Your task to perform on an android device: View the shopping cart on walmart. Search for "logitech g pro" on walmart, select the first entry, add it to the cart, then select checkout. Image 0: 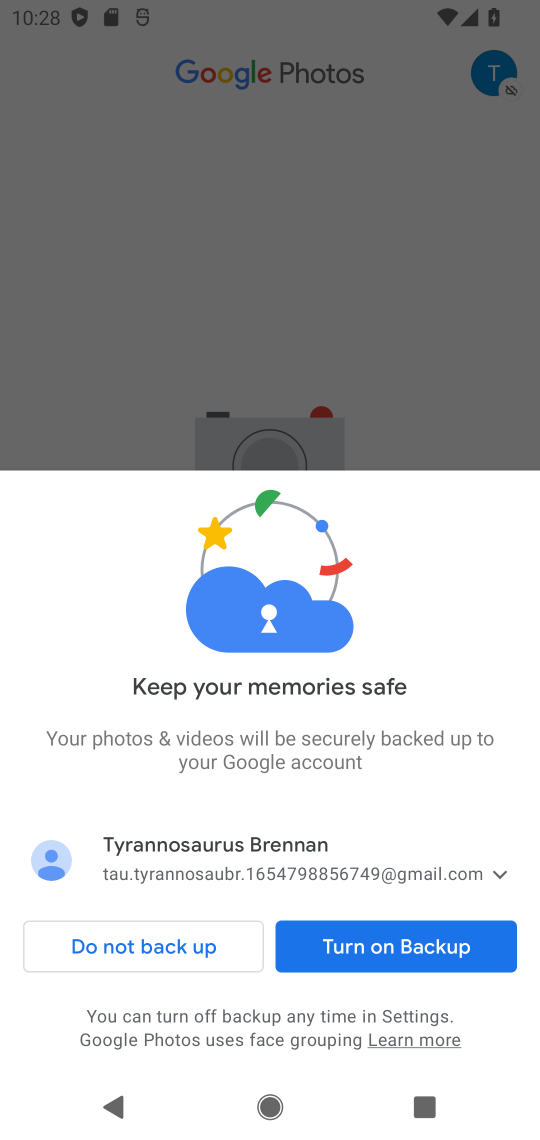
Step 0: press home button
Your task to perform on an android device: View the shopping cart on walmart. Search for "logitech g pro" on walmart, select the first entry, add it to the cart, then select checkout. Image 1: 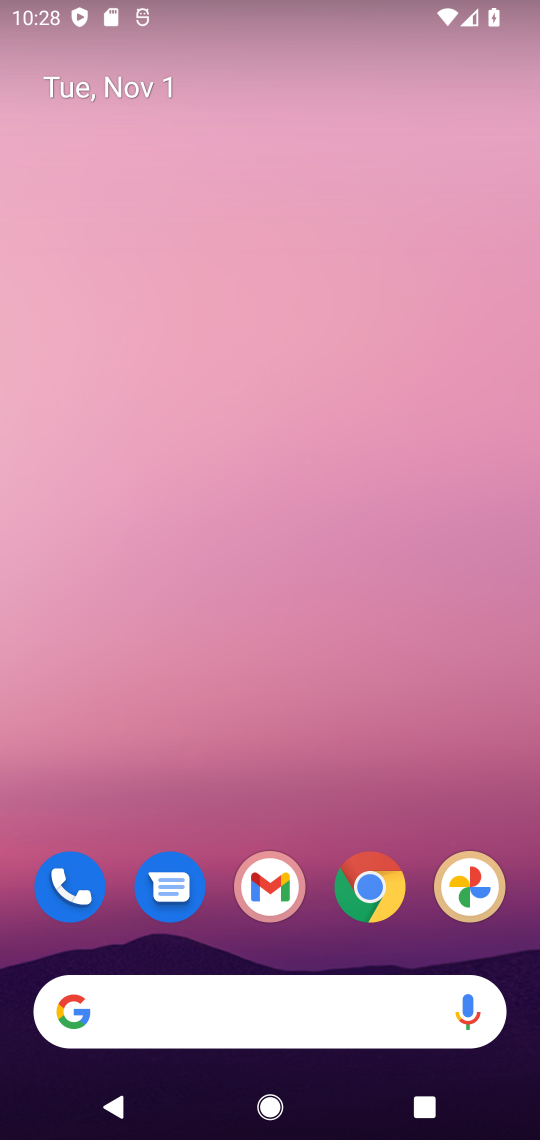
Step 1: click (369, 877)
Your task to perform on an android device: View the shopping cart on walmart. Search for "logitech g pro" on walmart, select the first entry, add it to the cart, then select checkout. Image 2: 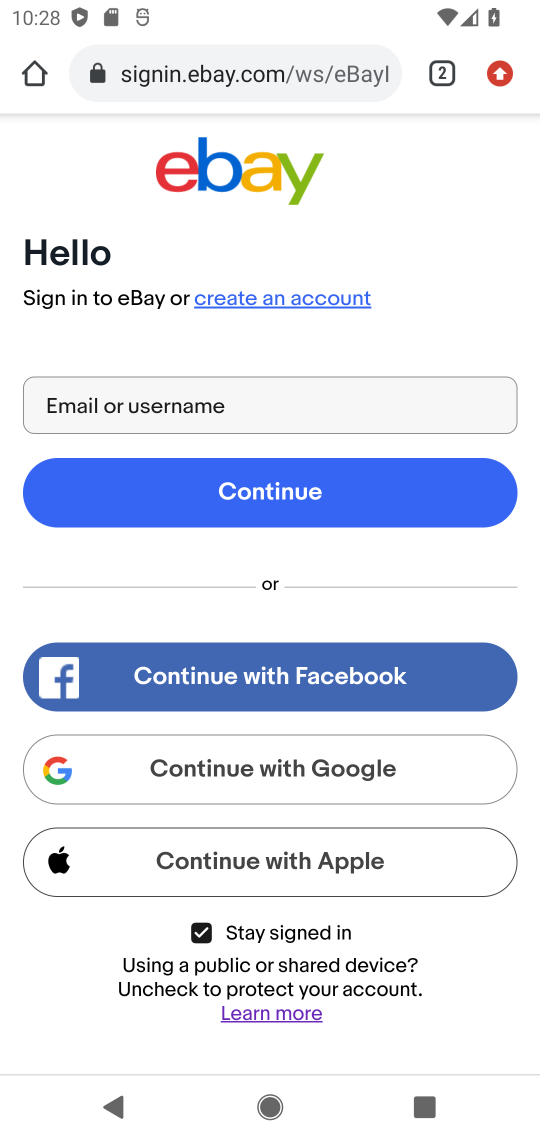
Step 2: click (271, 82)
Your task to perform on an android device: View the shopping cart on walmart. Search for "logitech g pro" on walmart, select the first entry, add it to the cart, then select checkout. Image 3: 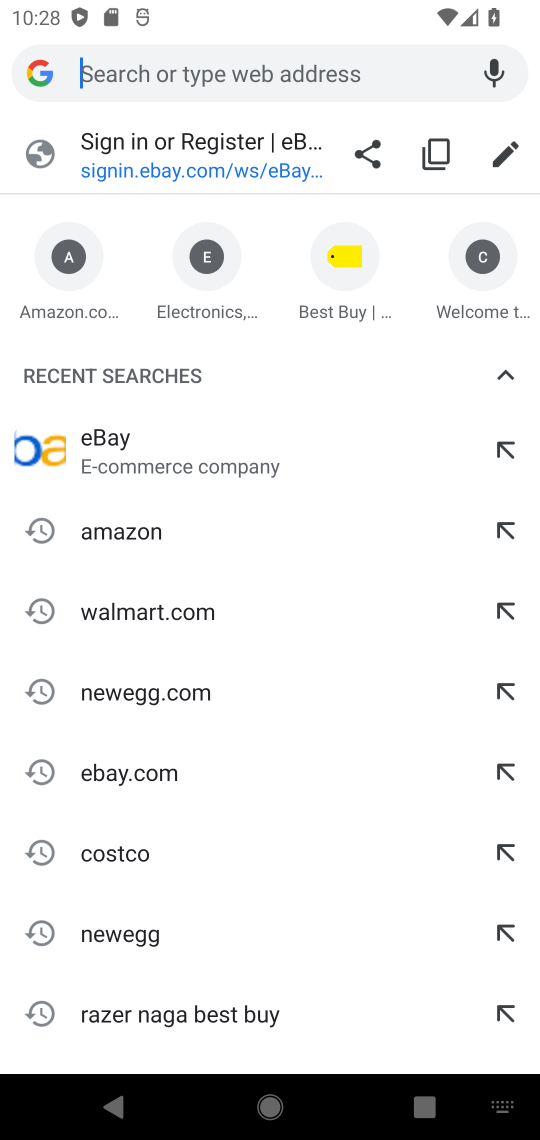
Step 3: click (170, 621)
Your task to perform on an android device: View the shopping cart on walmart. Search for "logitech g pro" on walmart, select the first entry, add it to the cart, then select checkout. Image 4: 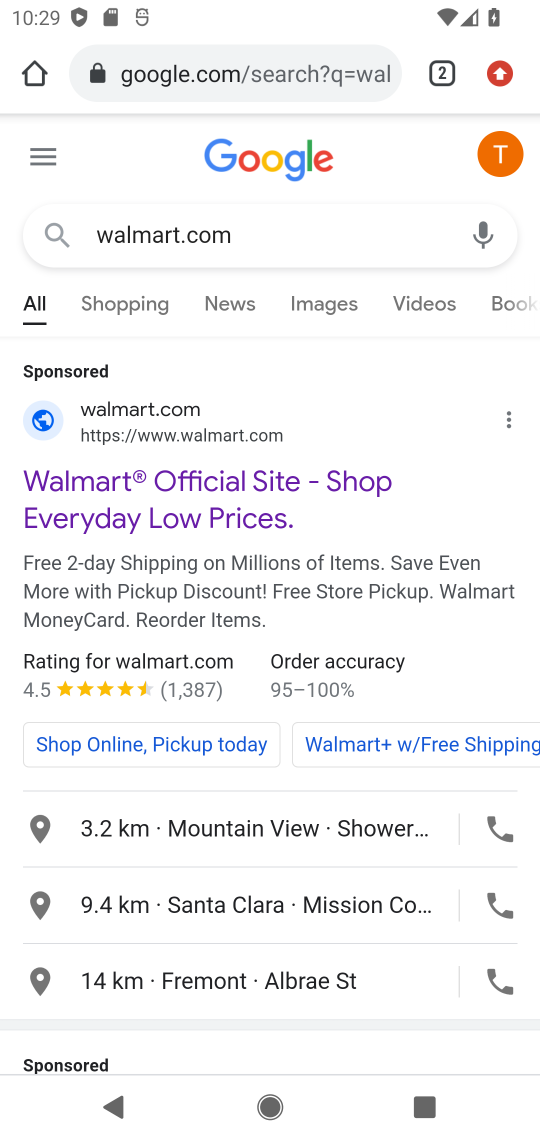
Step 4: click (57, 488)
Your task to perform on an android device: View the shopping cart on walmart. Search for "logitech g pro" on walmart, select the first entry, add it to the cart, then select checkout. Image 5: 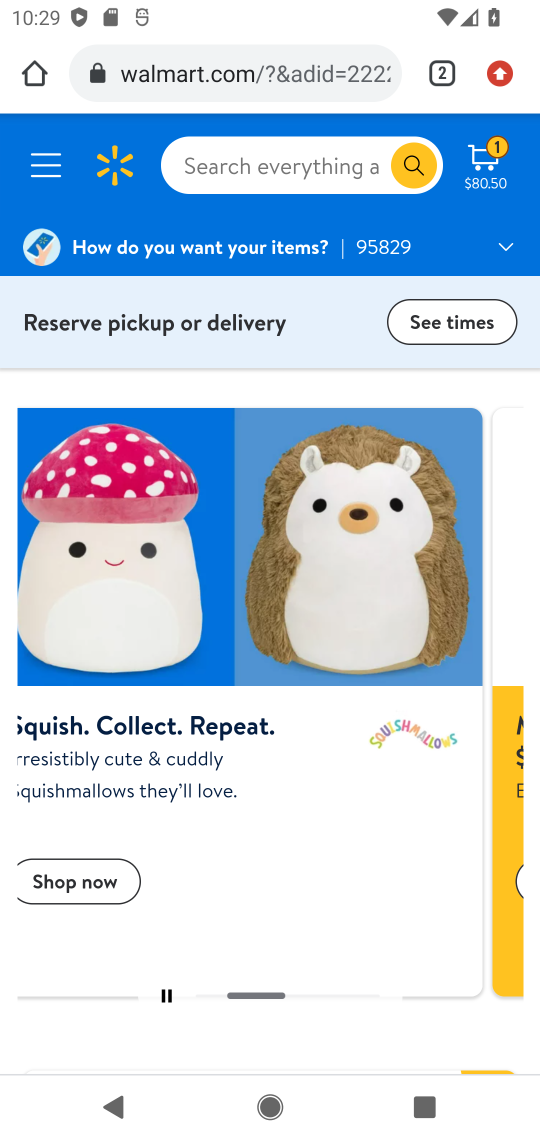
Step 5: click (215, 159)
Your task to perform on an android device: View the shopping cart on walmart. Search for "logitech g pro" on walmart, select the first entry, add it to the cart, then select checkout. Image 6: 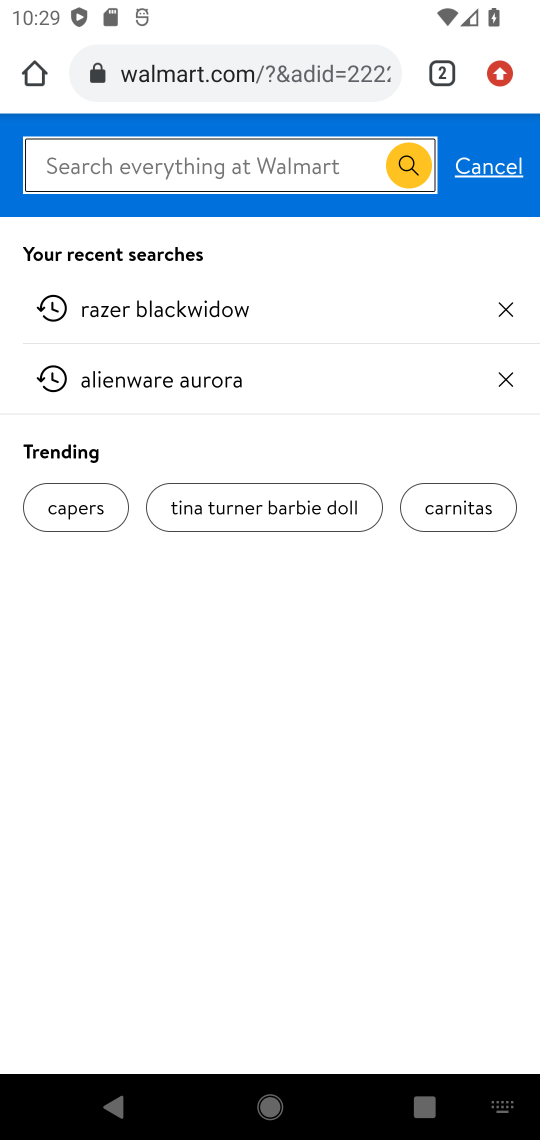
Step 6: click (480, 166)
Your task to perform on an android device: View the shopping cart on walmart. Search for "logitech g pro" on walmart, select the first entry, add it to the cart, then select checkout. Image 7: 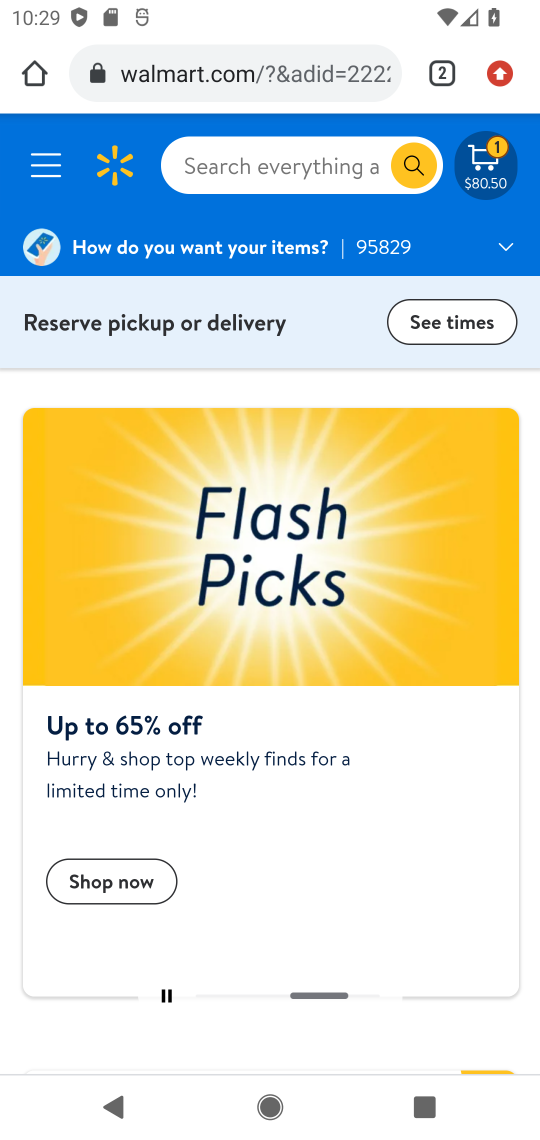
Step 7: click (481, 178)
Your task to perform on an android device: View the shopping cart on walmart. Search for "logitech g pro" on walmart, select the first entry, add it to the cart, then select checkout. Image 8: 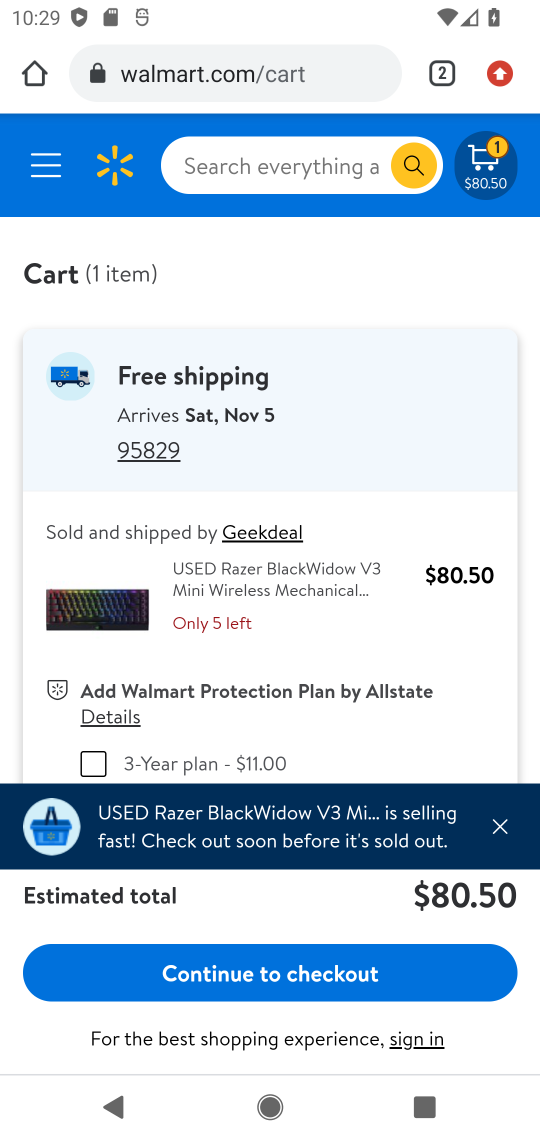
Step 8: click (317, 154)
Your task to perform on an android device: View the shopping cart on walmart. Search for "logitech g pro" on walmart, select the first entry, add it to the cart, then select checkout. Image 9: 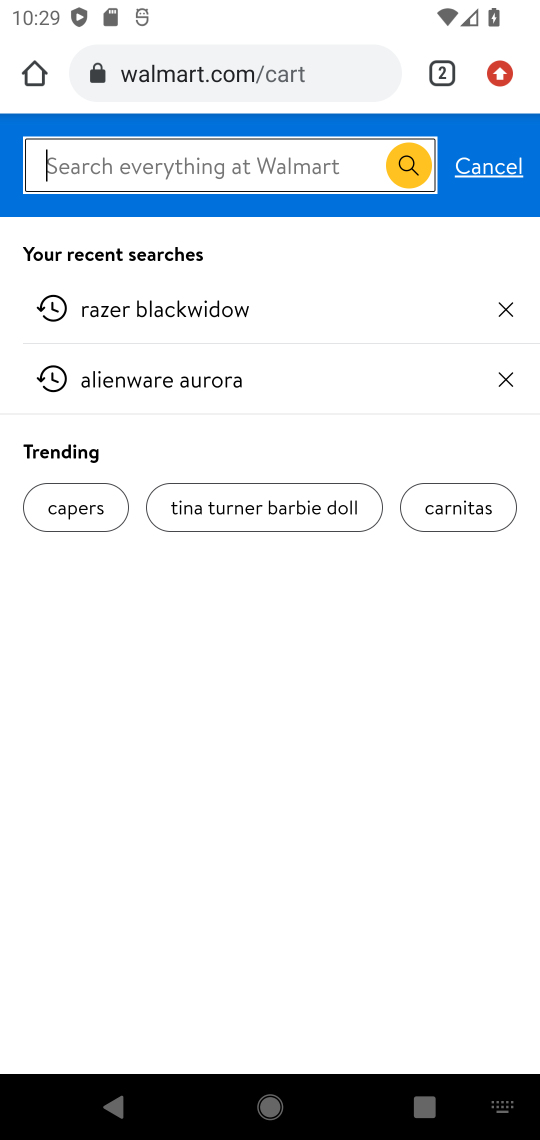
Step 9: drag from (73, 1106) to (0, 737)
Your task to perform on an android device: View the shopping cart on walmart. Search for "logitech g pro" on walmart, select the first entry, add it to the cart, then select checkout. Image 10: 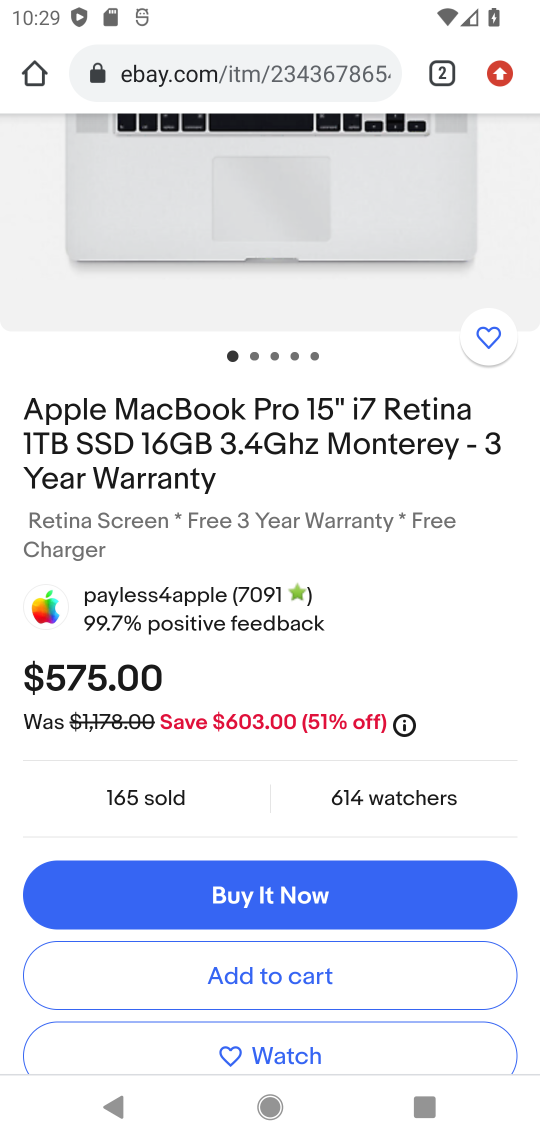
Step 10: click (184, 170)
Your task to perform on an android device: View the shopping cart on walmart. Search for "logitech g pro" on walmart, select the first entry, add it to the cart, then select checkout. Image 11: 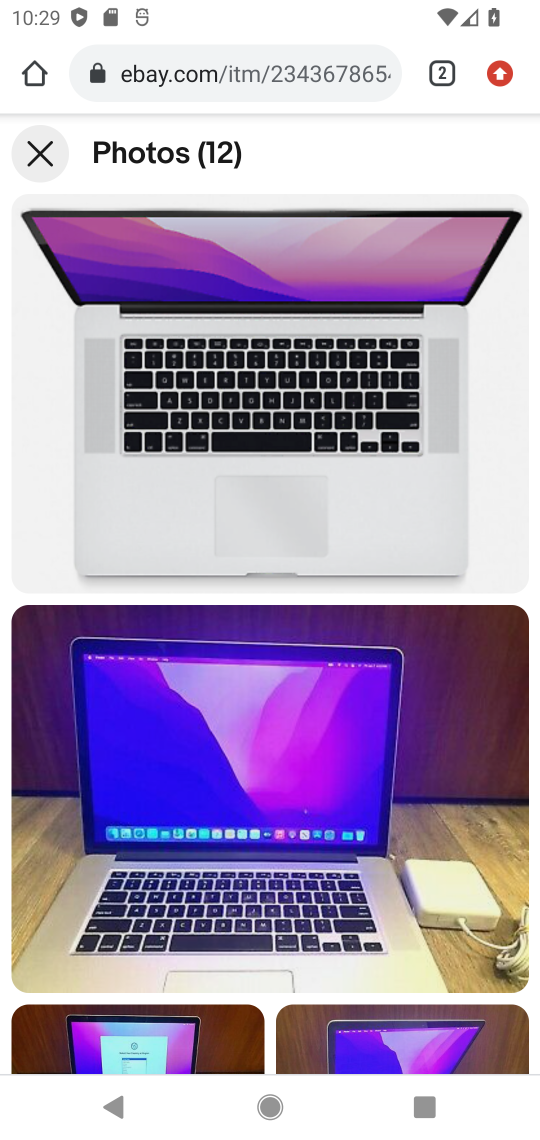
Step 11: drag from (391, 533) to (346, 304)
Your task to perform on an android device: View the shopping cart on walmart. Search for "logitech g pro" on walmart, select the first entry, add it to the cart, then select checkout. Image 12: 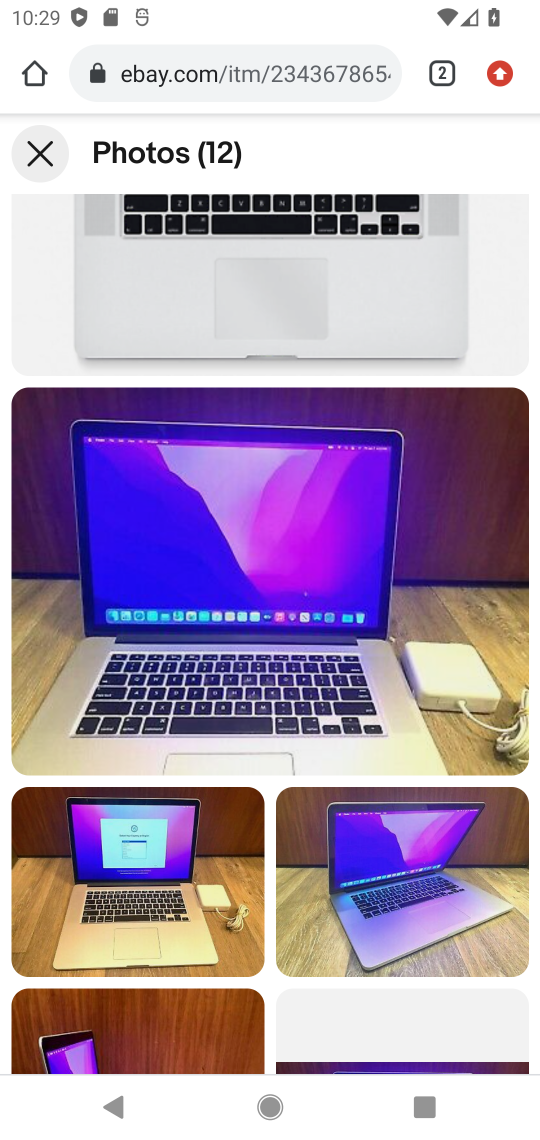
Step 12: click (279, 85)
Your task to perform on an android device: View the shopping cart on walmart. Search for "logitech g pro" on walmart, select the first entry, add it to the cart, then select checkout. Image 13: 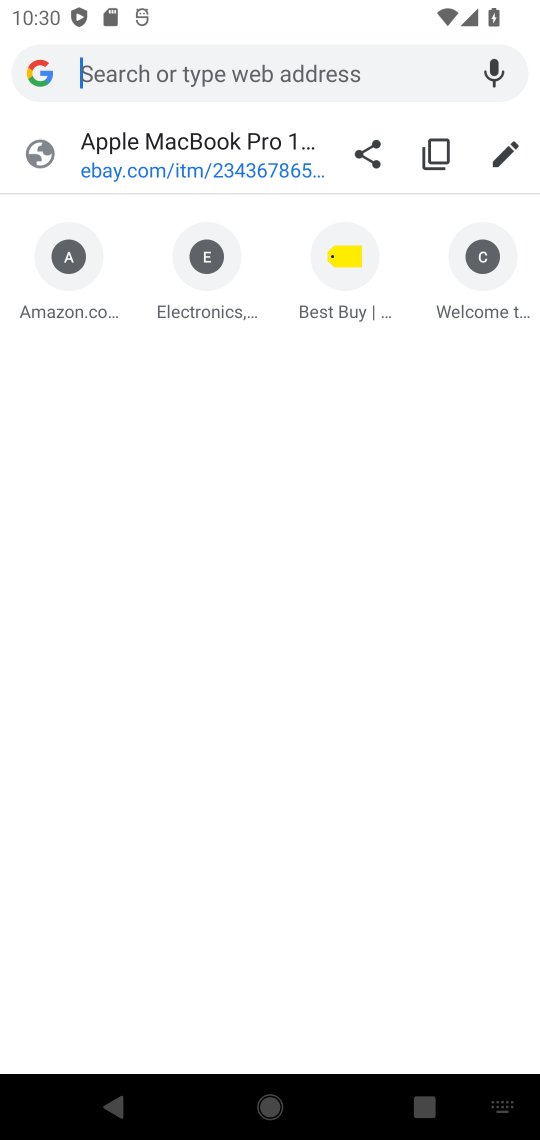
Step 13: click (476, 265)
Your task to perform on an android device: View the shopping cart on walmart. Search for "logitech g pro" on walmart, select the first entry, add it to the cart, then select checkout. Image 14: 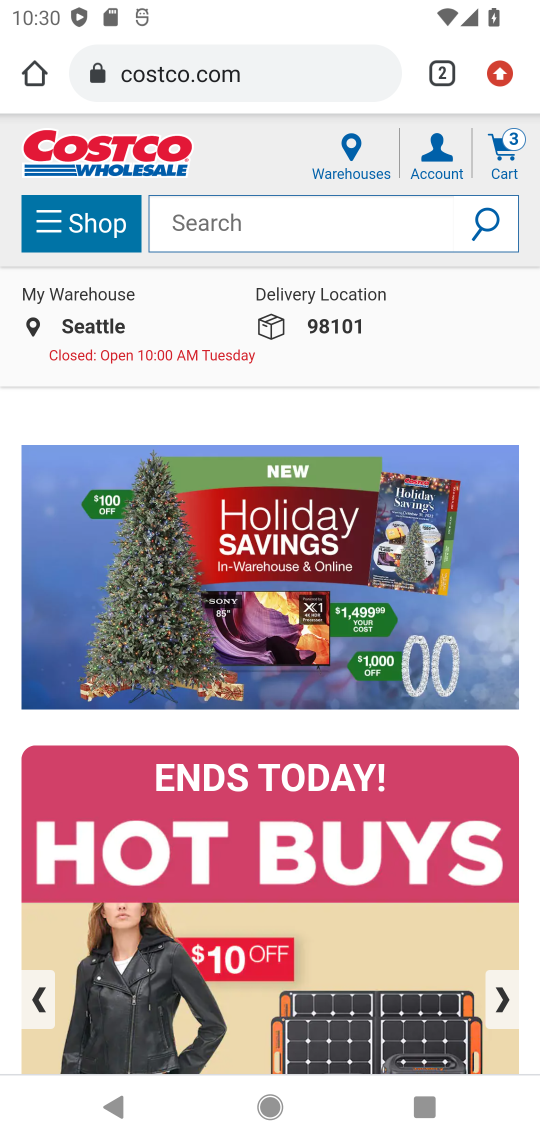
Step 14: click (283, 240)
Your task to perform on an android device: View the shopping cart on walmart. Search for "logitech g pro" on walmart, select the first entry, add it to the cart, then select checkout. Image 15: 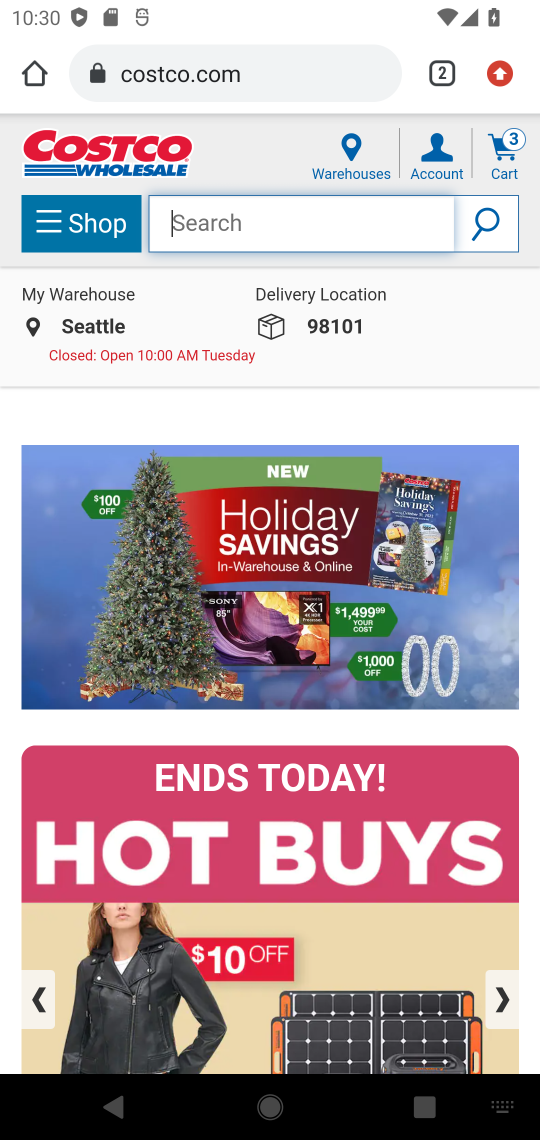
Step 15: click (224, 76)
Your task to perform on an android device: View the shopping cart on walmart. Search for "logitech g pro" on walmart, select the first entry, add it to the cart, then select checkout. Image 16: 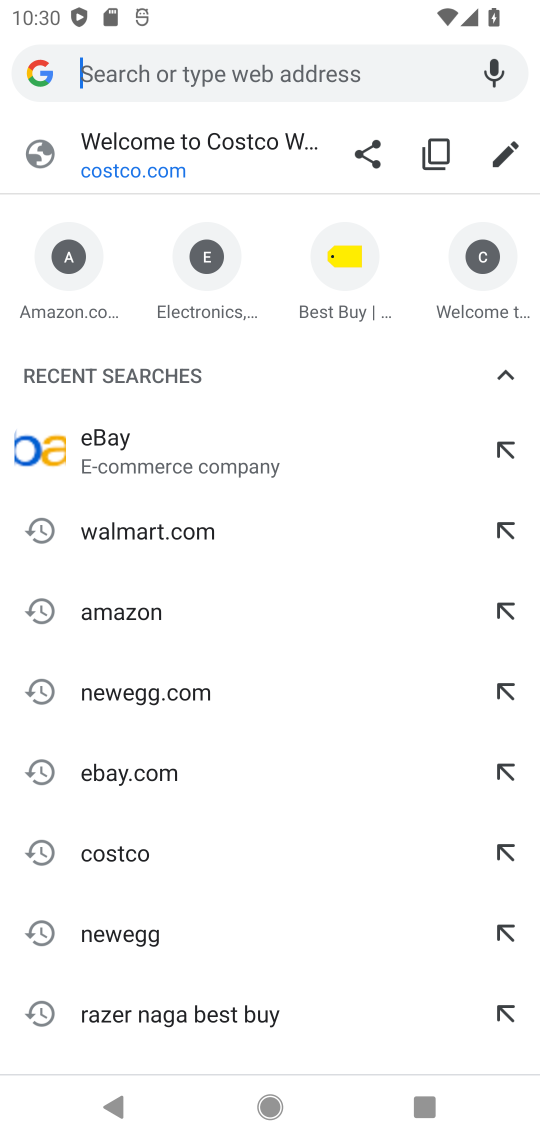
Step 16: click (97, 535)
Your task to perform on an android device: View the shopping cart on walmart. Search for "logitech g pro" on walmart, select the first entry, add it to the cart, then select checkout. Image 17: 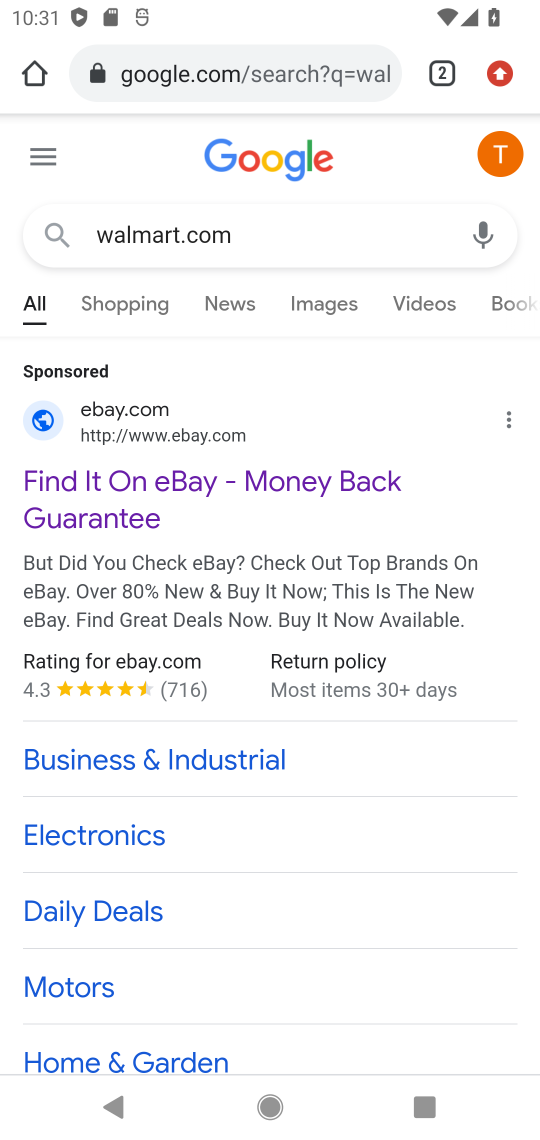
Step 17: click (185, 63)
Your task to perform on an android device: View the shopping cart on walmart. Search for "logitech g pro" on walmart, select the first entry, add it to the cart, then select checkout. Image 18: 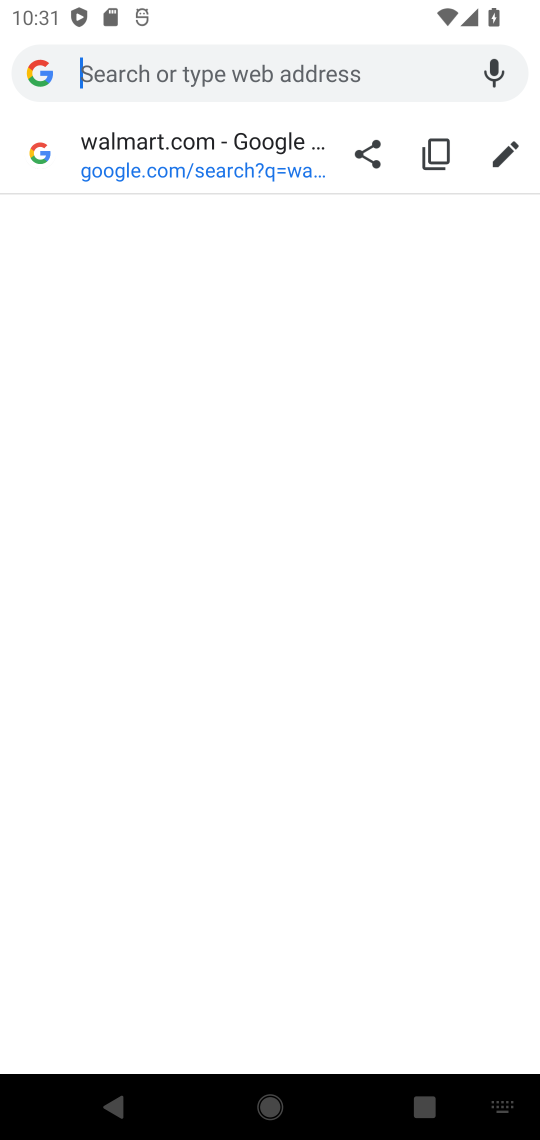
Step 18: click (165, 170)
Your task to perform on an android device: View the shopping cart on walmart. Search for "logitech g pro" on walmart, select the first entry, add it to the cart, then select checkout. Image 19: 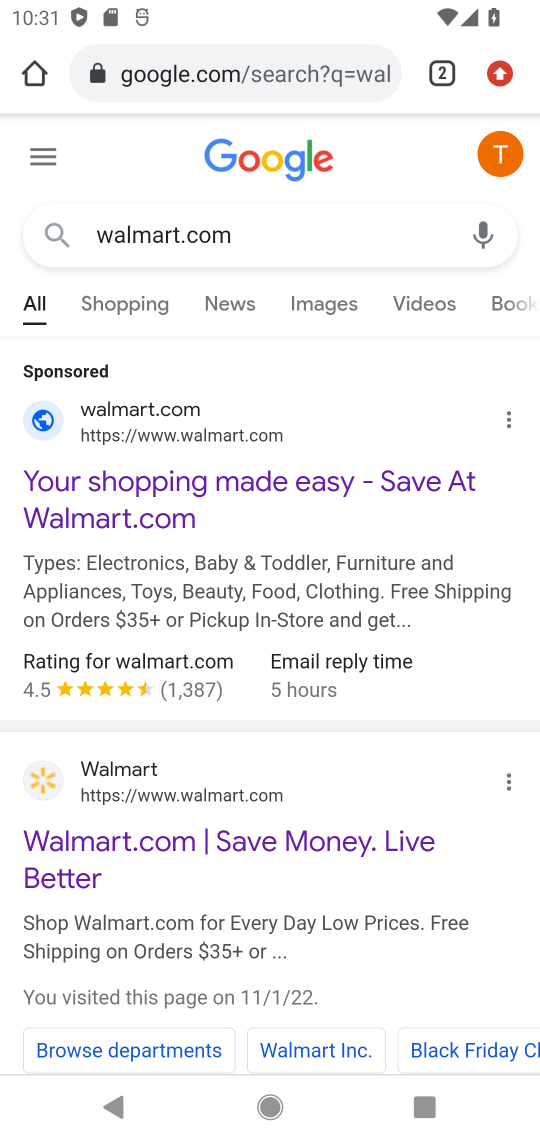
Step 19: click (105, 410)
Your task to perform on an android device: View the shopping cart on walmart. Search for "logitech g pro" on walmart, select the first entry, add it to the cart, then select checkout. Image 20: 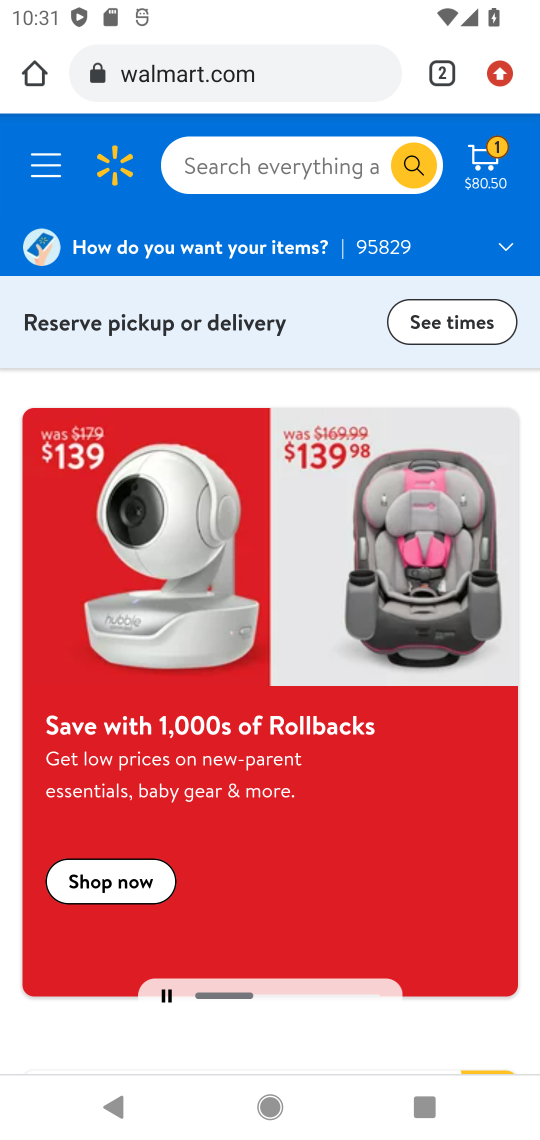
Step 20: click (303, 159)
Your task to perform on an android device: View the shopping cart on walmart. Search for "logitech g pro" on walmart, select the first entry, add it to the cart, then select checkout. Image 21: 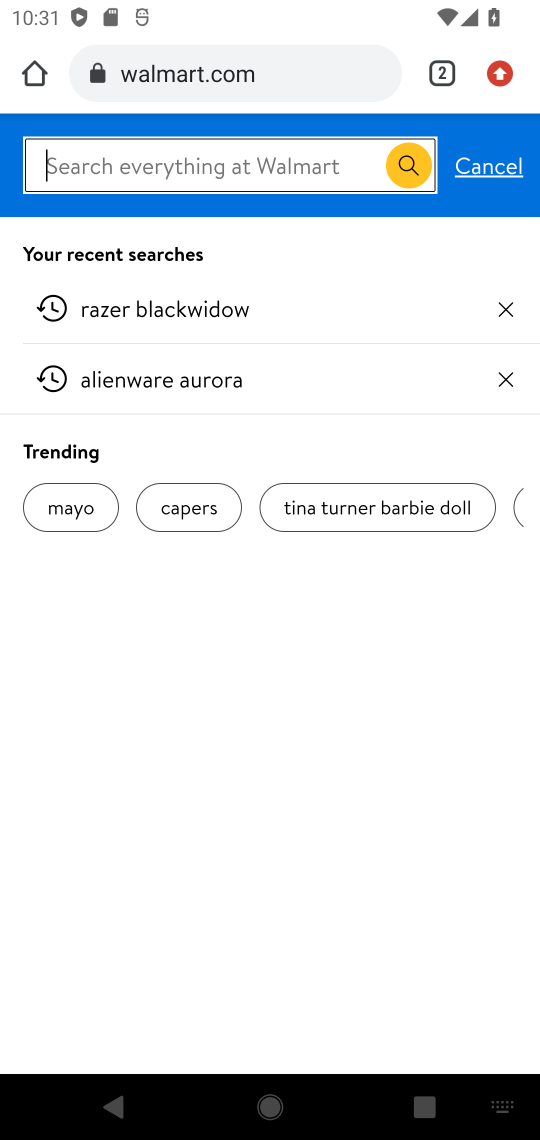
Step 21: click (494, 166)
Your task to perform on an android device: View the shopping cart on walmart. Search for "logitech g pro" on walmart, select the first entry, add it to the cart, then select checkout. Image 22: 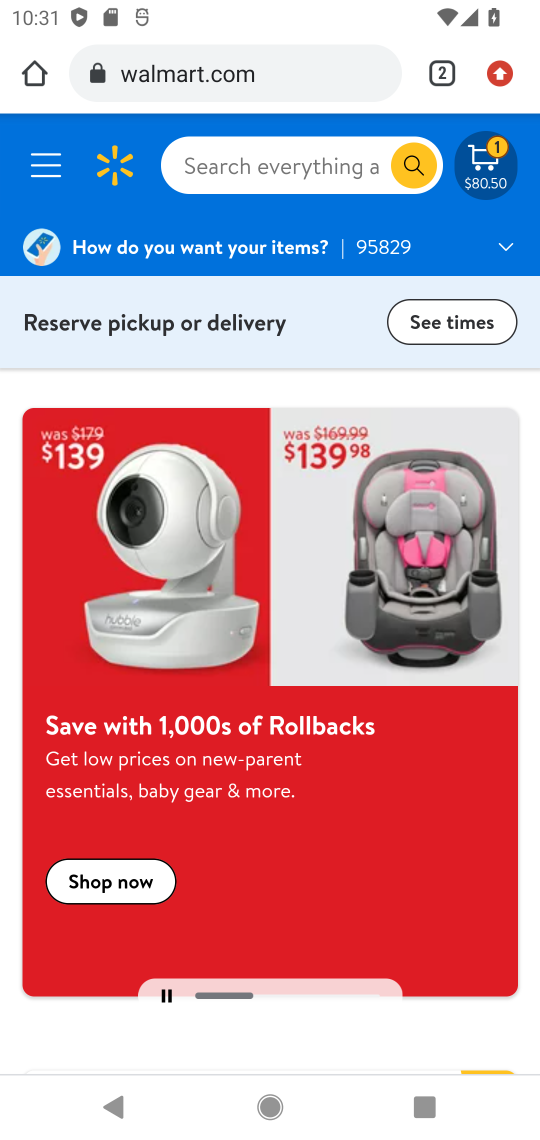
Step 22: click (493, 165)
Your task to perform on an android device: View the shopping cart on walmart. Search for "logitech g pro" on walmart, select the first entry, add it to the cart, then select checkout. Image 23: 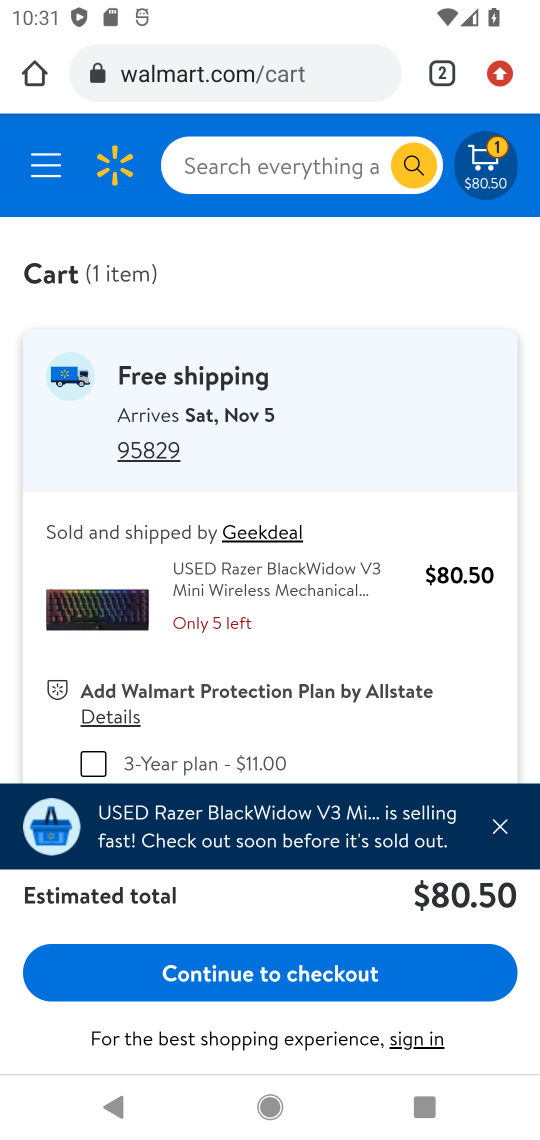
Step 23: drag from (335, 685) to (339, 385)
Your task to perform on an android device: View the shopping cart on walmart. Search for "logitech g pro" on walmart, select the first entry, add it to the cart, then select checkout. Image 24: 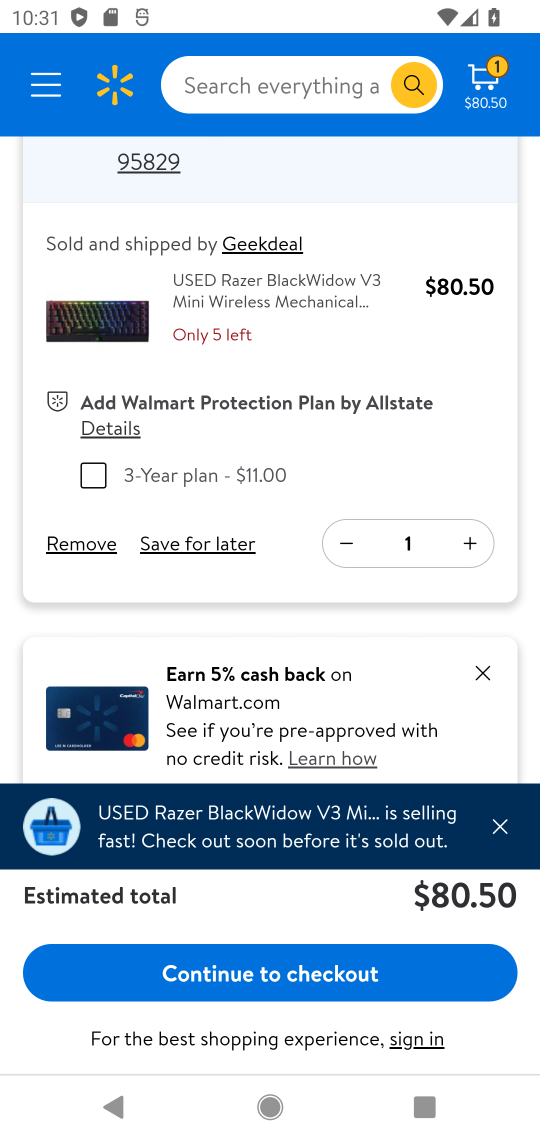
Step 24: click (85, 551)
Your task to perform on an android device: View the shopping cart on walmart. Search for "logitech g pro" on walmart, select the first entry, add it to the cart, then select checkout. Image 25: 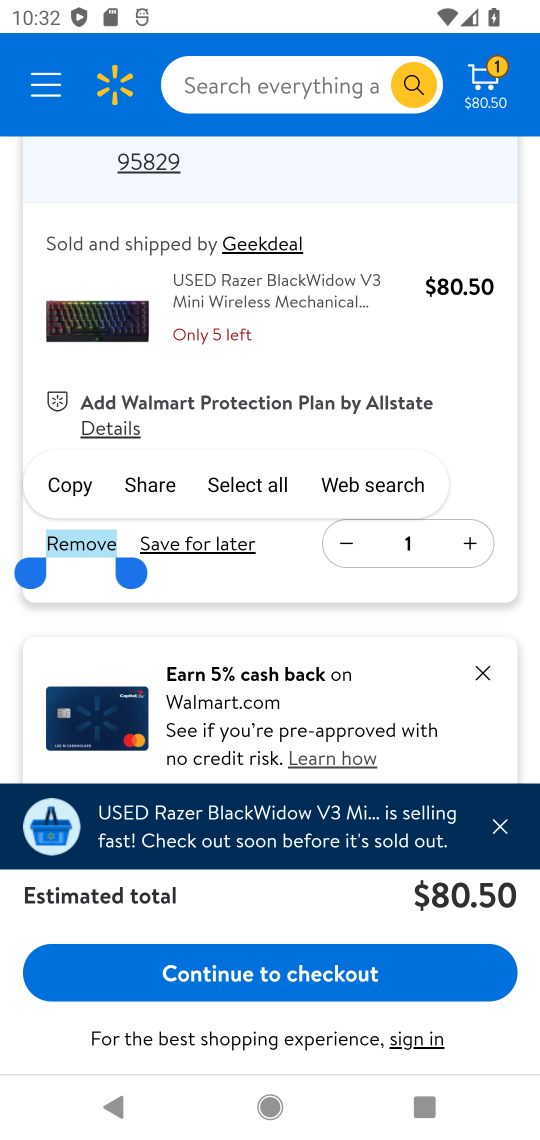
Step 25: drag from (357, 705) to (312, 443)
Your task to perform on an android device: View the shopping cart on walmart. Search for "logitech g pro" on walmart, select the first entry, add it to the cart, then select checkout. Image 26: 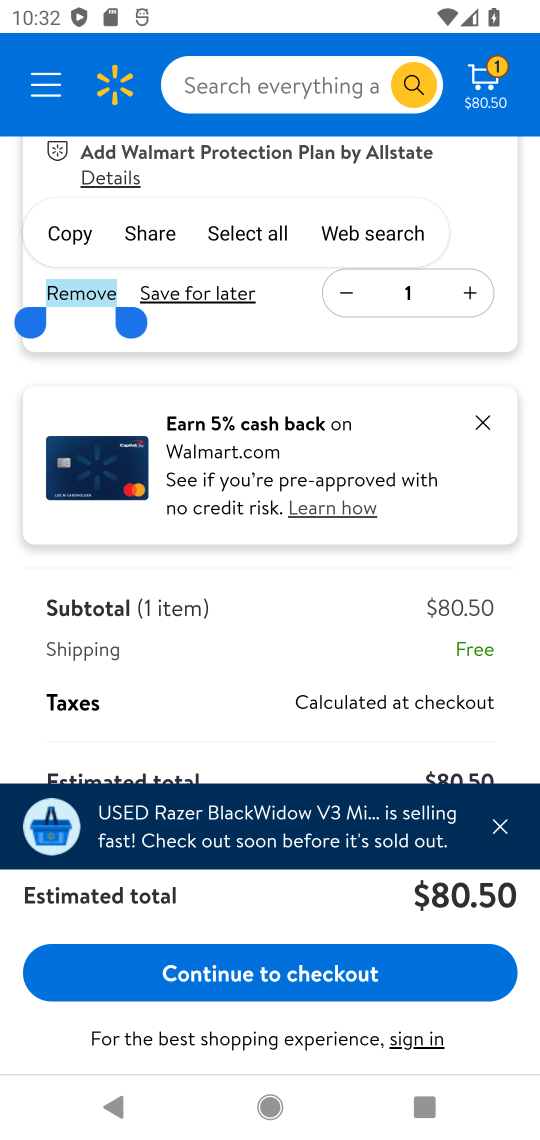
Step 26: drag from (355, 388) to (501, 859)
Your task to perform on an android device: View the shopping cart on walmart. Search for "logitech g pro" on walmart, select the first entry, add it to the cart, then select checkout. Image 27: 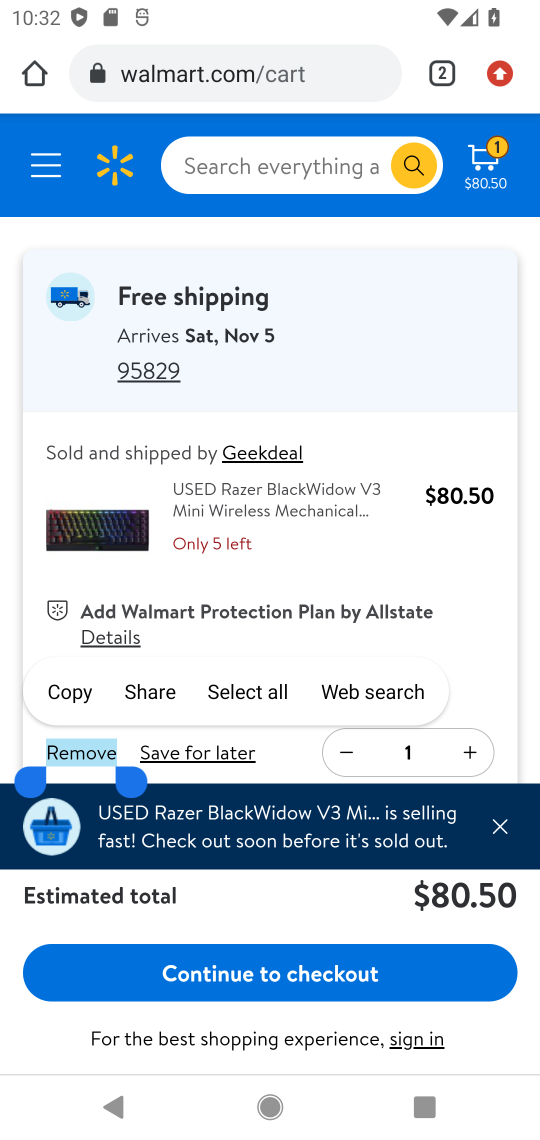
Step 27: click (280, 156)
Your task to perform on an android device: View the shopping cart on walmart. Search for "logitech g pro" on walmart, select the first entry, add it to the cart, then select checkout. Image 28: 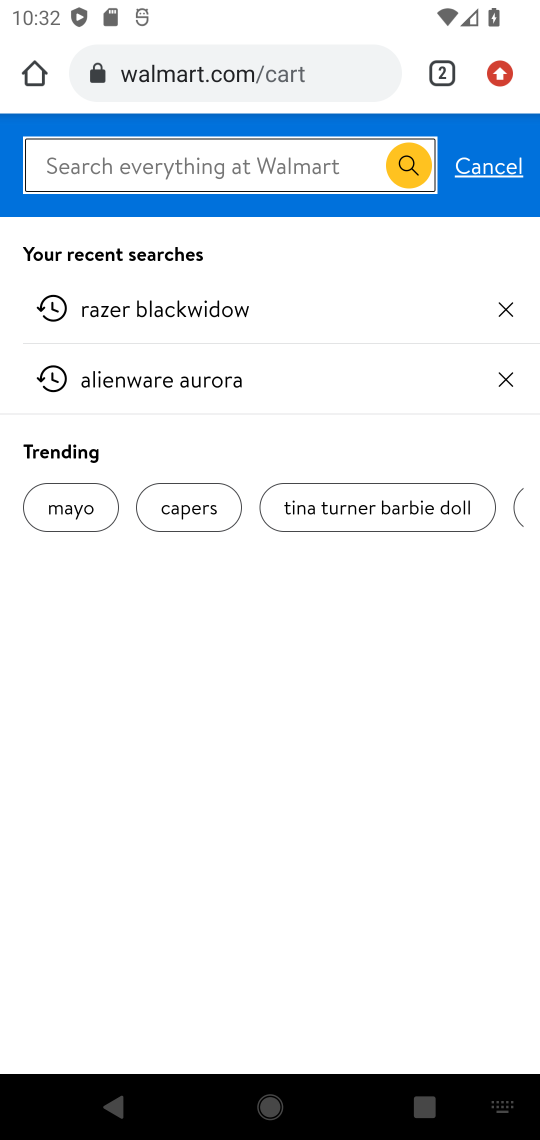
Step 28: type "logitech g pro"
Your task to perform on an android device: View the shopping cart on walmart. Search for "logitech g pro" on walmart, select the first entry, add it to the cart, then select checkout. Image 29: 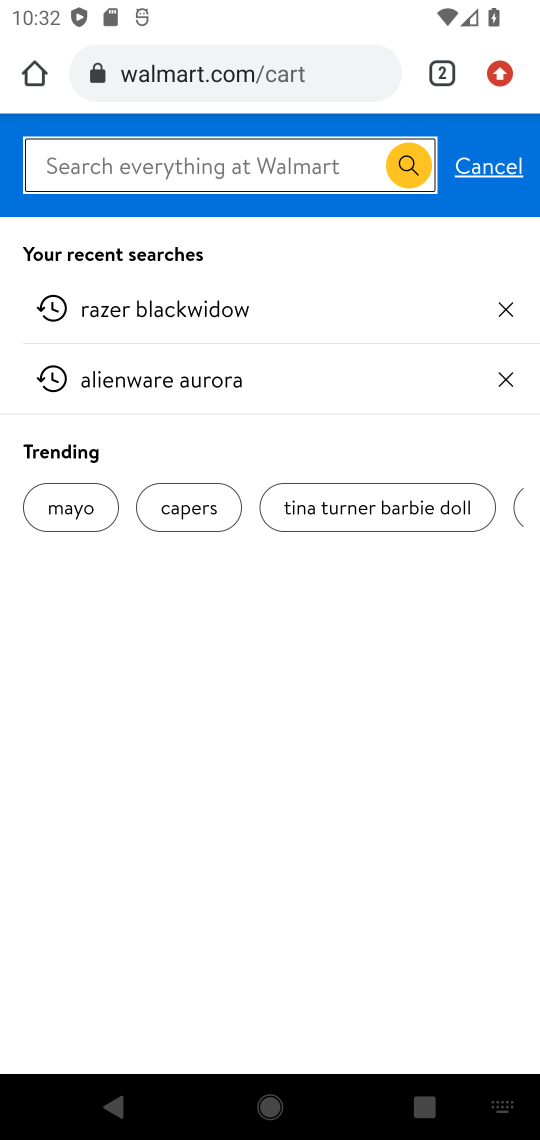
Step 29: press enter
Your task to perform on an android device: View the shopping cart on walmart. Search for "logitech g pro" on walmart, select the first entry, add it to the cart, then select checkout. Image 30: 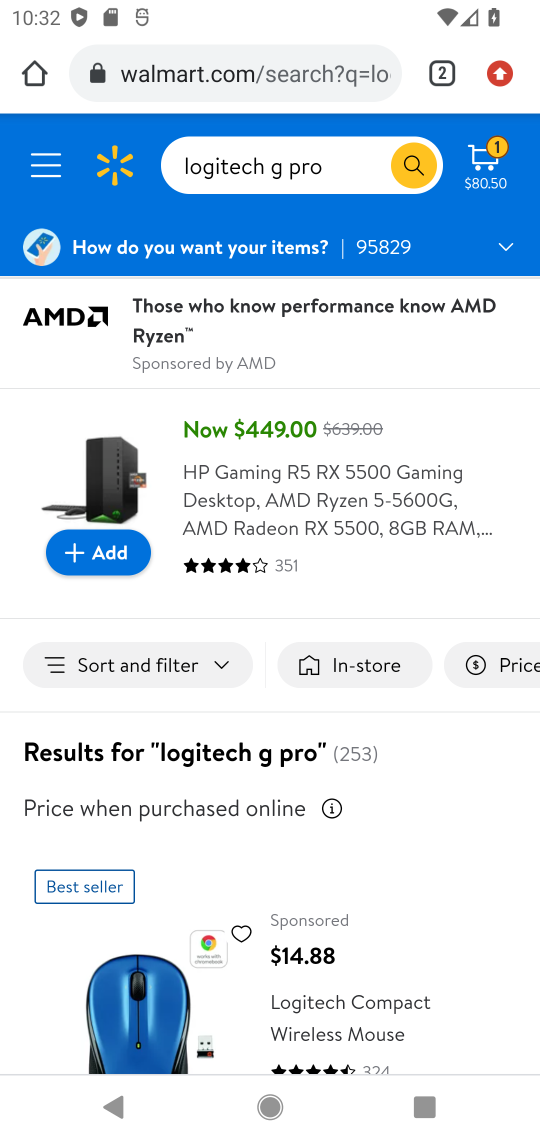
Step 30: drag from (459, 783) to (452, 517)
Your task to perform on an android device: View the shopping cart on walmart. Search for "logitech g pro" on walmart, select the first entry, add it to the cart, then select checkout. Image 31: 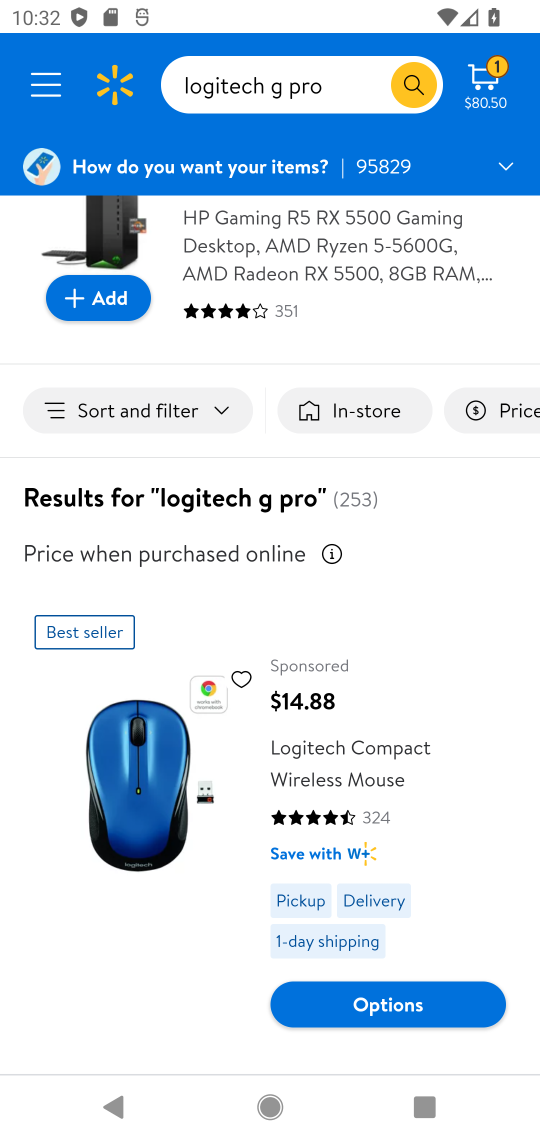
Step 31: click (115, 746)
Your task to perform on an android device: View the shopping cart on walmart. Search for "logitech g pro" on walmart, select the first entry, add it to the cart, then select checkout. Image 32: 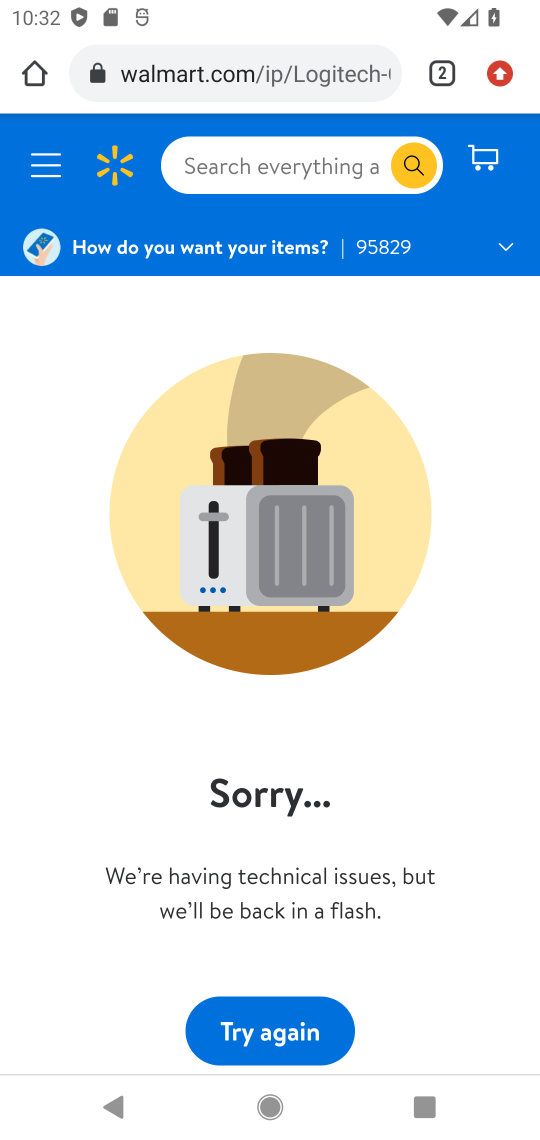
Step 32: press back button
Your task to perform on an android device: View the shopping cart on walmart. Search for "logitech g pro" on walmart, select the first entry, add it to the cart, then select checkout. Image 33: 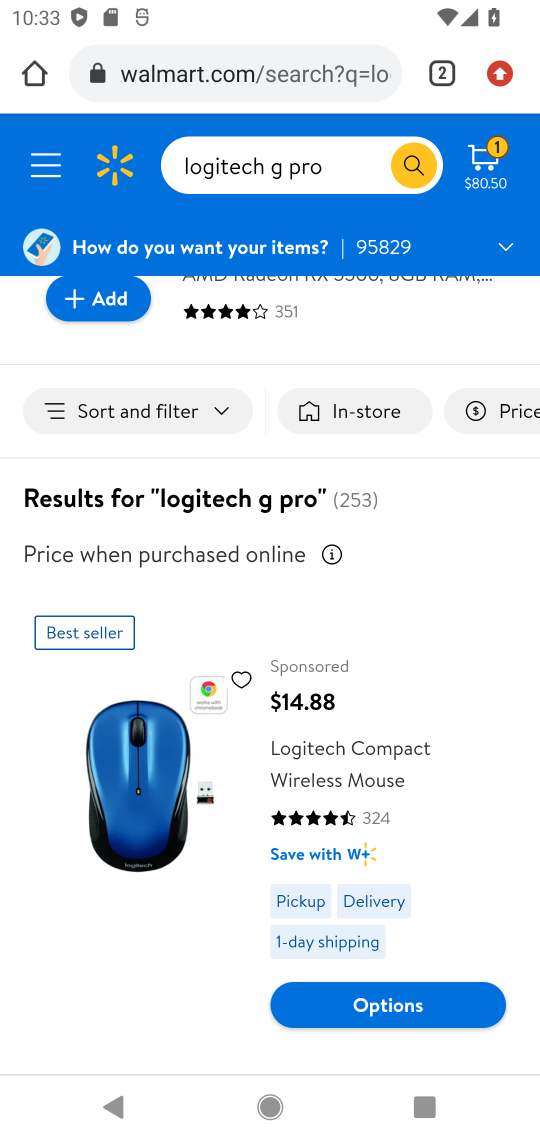
Step 33: drag from (82, 870) to (82, 403)
Your task to perform on an android device: View the shopping cart on walmart. Search for "logitech g pro" on walmart, select the first entry, add it to the cart, then select checkout. Image 34: 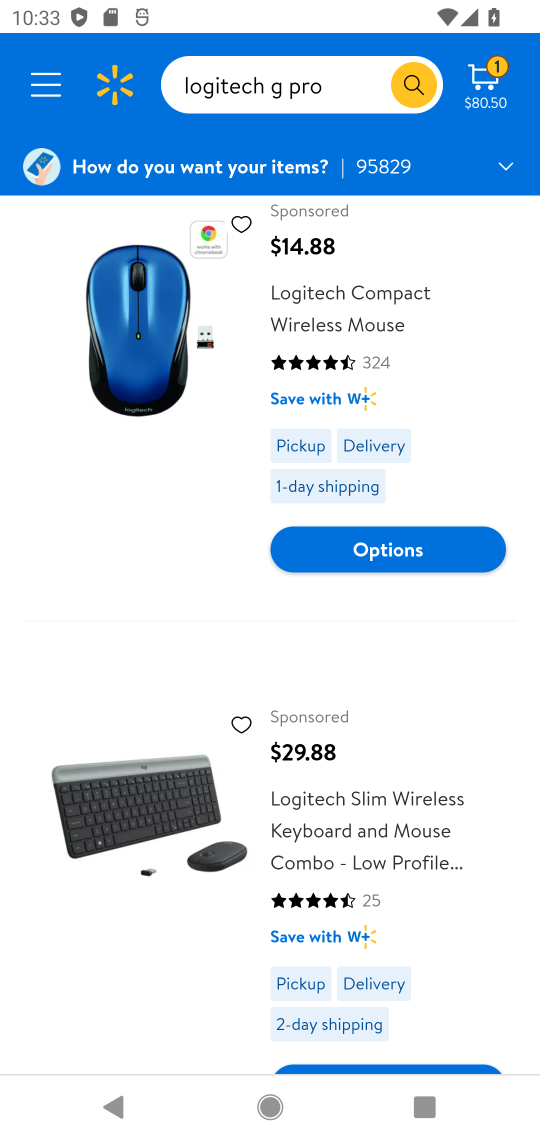
Step 34: click (89, 363)
Your task to perform on an android device: View the shopping cart on walmart. Search for "logitech g pro" on walmart, select the first entry, add it to the cart, then select checkout. Image 35: 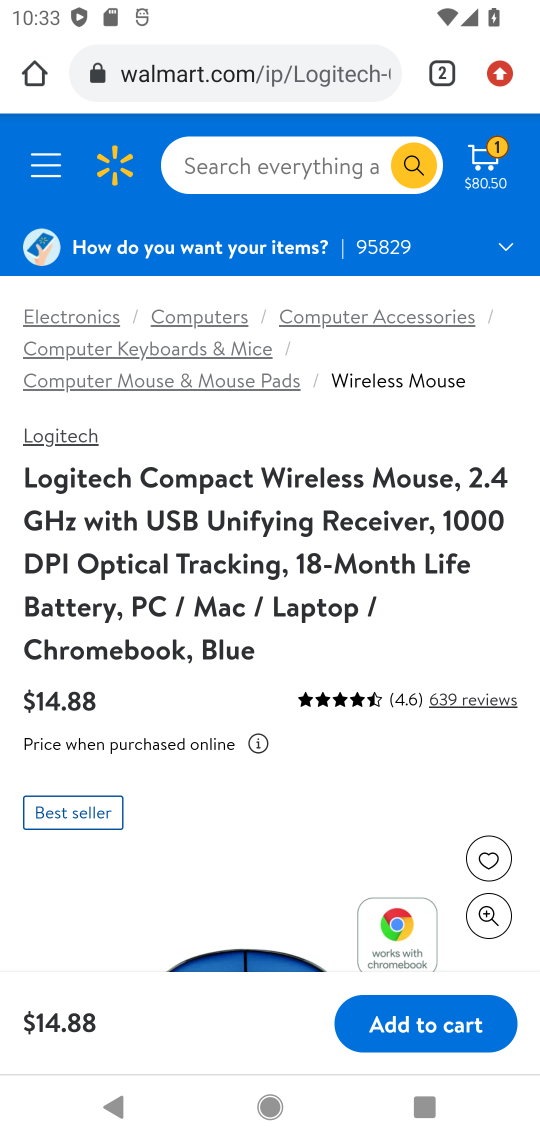
Step 35: click (442, 1018)
Your task to perform on an android device: View the shopping cart on walmart. Search for "logitech g pro" on walmart, select the first entry, add it to the cart, then select checkout. Image 36: 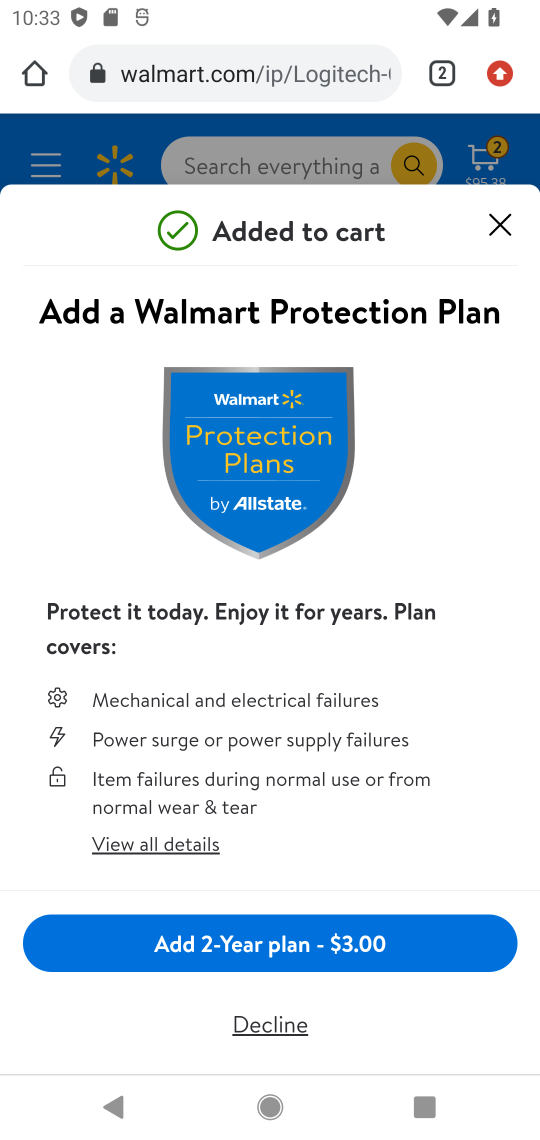
Step 36: click (501, 221)
Your task to perform on an android device: View the shopping cart on walmart. Search for "logitech g pro" on walmart, select the first entry, add it to the cart, then select checkout. Image 37: 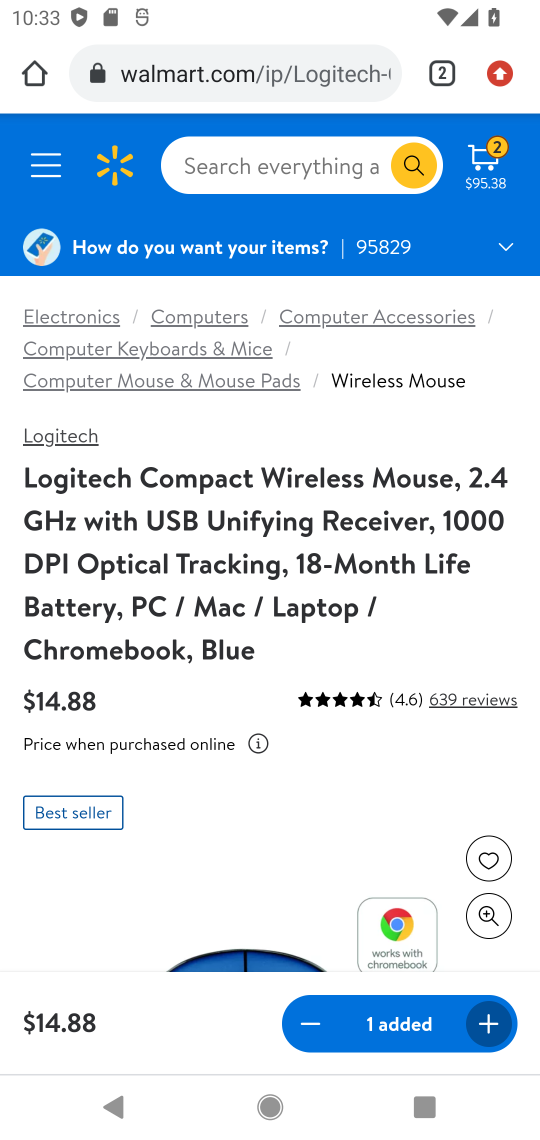
Step 37: click (489, 160)
Your task to perform on an android device: View the shopping cart on walmart. Search for "logitech g pro" on walmart, select the first entry, add it to the cart, then select checkout. Image 38: 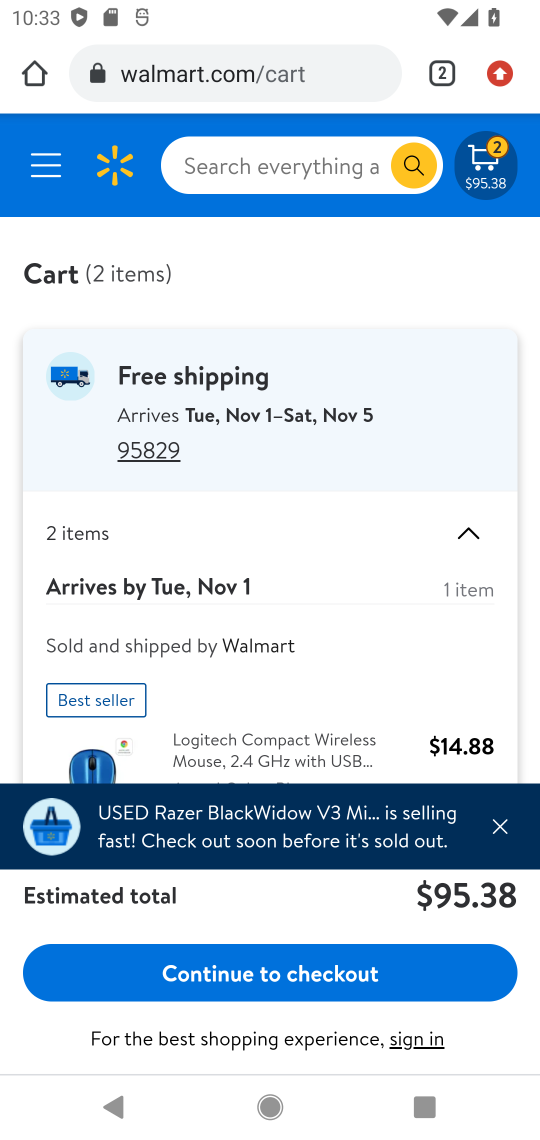
Step 38: click (296, 983)
Your task to perform on an android device: View the shopping cart on walmart. Search for "logitech g pro" on walmart, select the first entry, add it to the cart, then select checkout. Image 39: 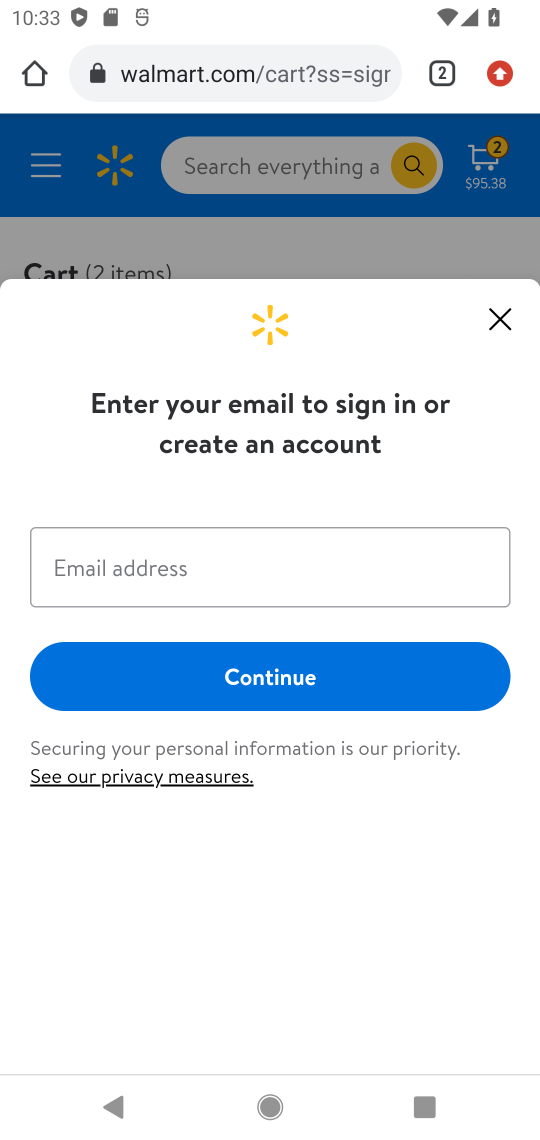
Step 39: task complete